Your task to perform on an android device: Toggle the flashlight Image 0: 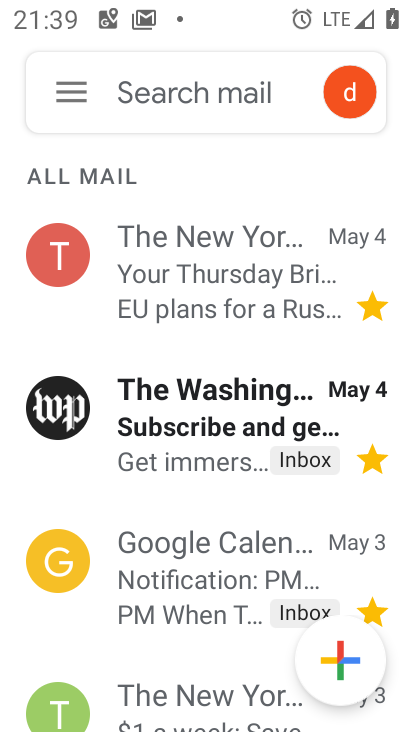
Step 0: drag from (276, 8) to (235, 631)
Your task to perform on an android device: Toggle the flashlight Image 1: 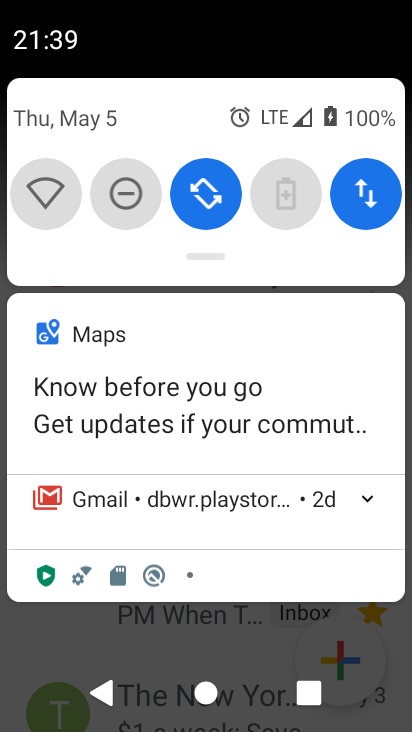
Step 1: drag from (204, 118) to (218, 585)
Your task to perform on an android device: Toggle the flashlight Image 2: 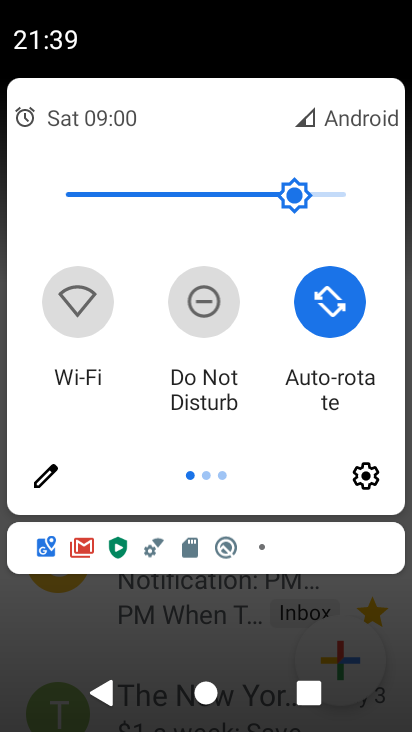
Step 2: click (364, 480)
Your task to perform on an android device: Toggle the flashlight Image 3: 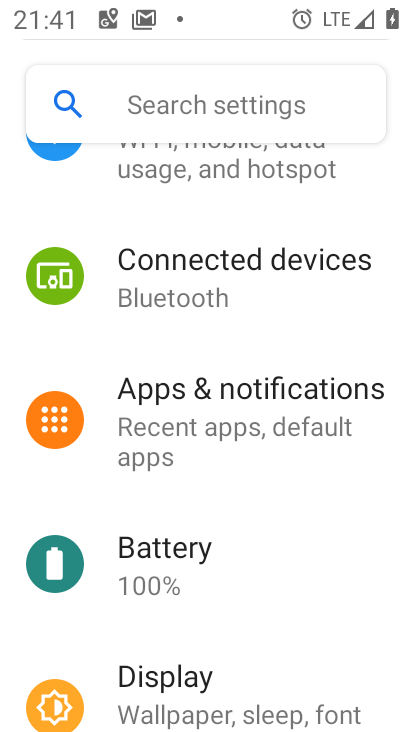
Step 3: task complete